Your task to perform on an android device: Go to Android settings Image 0: 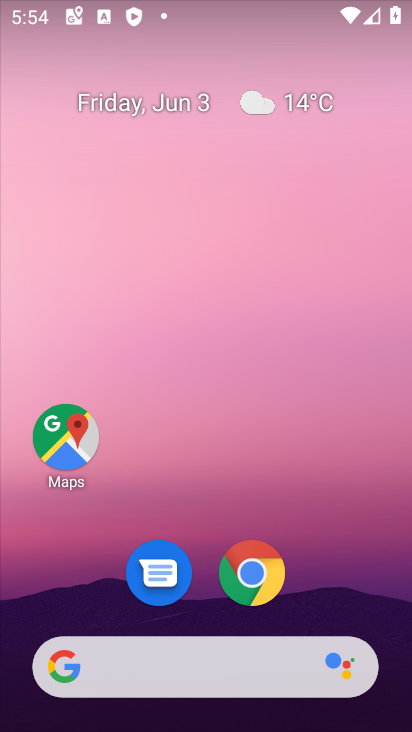
Step 0: drag from (252, 530) to (241, 4)
Your task to perform on an android device: Go to Android settings Image 1: 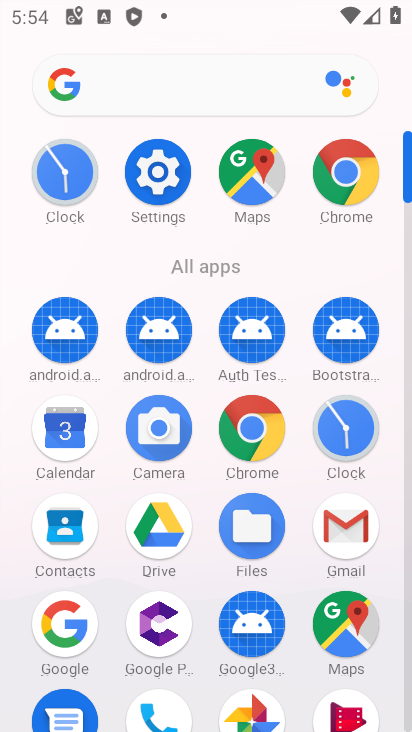
Step 1: click (164, 151)
Your task to perform on an android device: Go to Android settings Image 2: 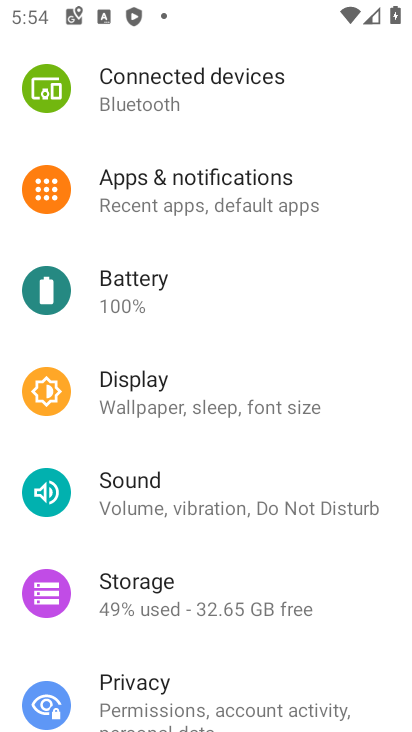
Step 2: drag from (240, 171) to (208, 727)
Your task to perform on an android device: Go to Android settings Image 3: 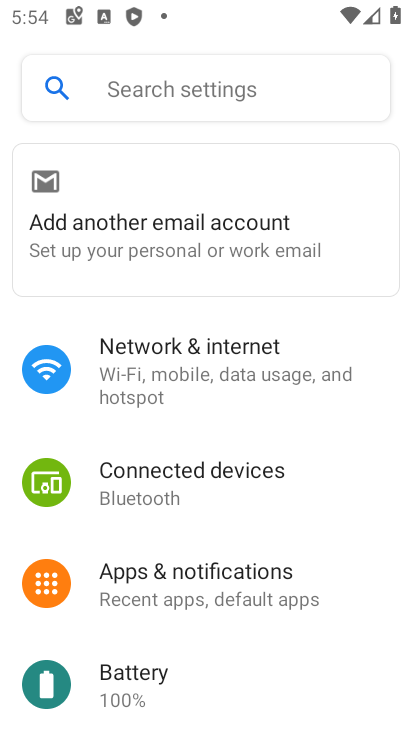
Step 3: drag from (241, 677) to (209, 138)
Your task to perform on an android device: Go to Android settings Image 4: 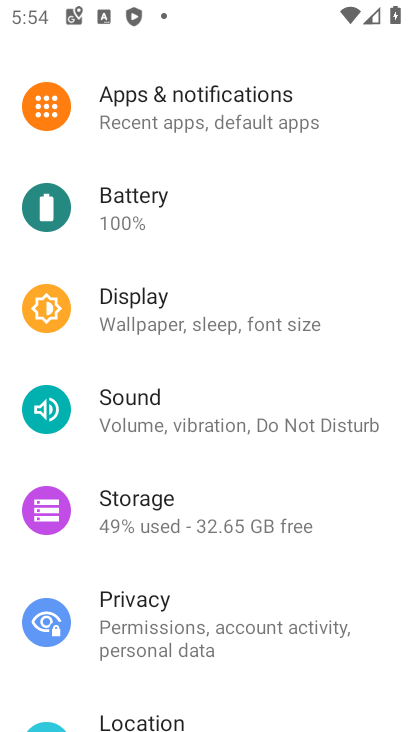
Step 4: drag from (305, 714) to (246, 176)
Your task to perform on an android device: Go to Android settings Image 5: 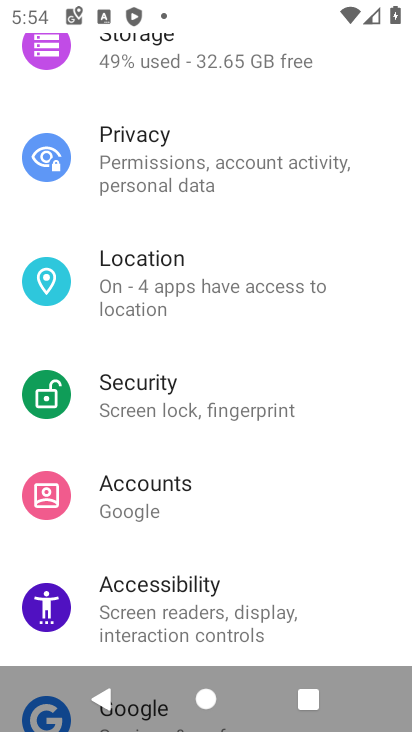
Step 5: drag from (247, 640) to (246, 273)
Your task to perform on an android device: Go to Android settings Image 6: 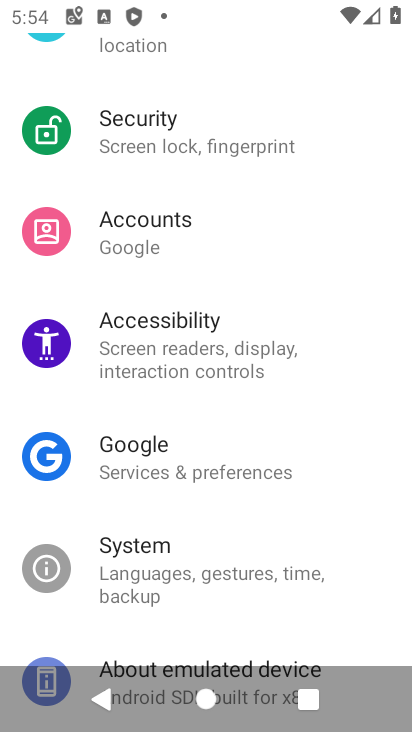
Step 6: click (233, 655)
Your task to perform on an android device: Go to Android settings Image 7: 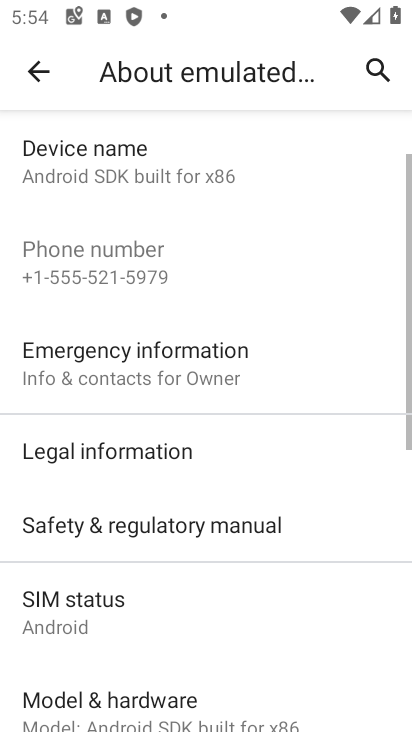
Step 7: task complete